Your task to perform on an android device: see tabs open on other devices in the chrome app Image 0: 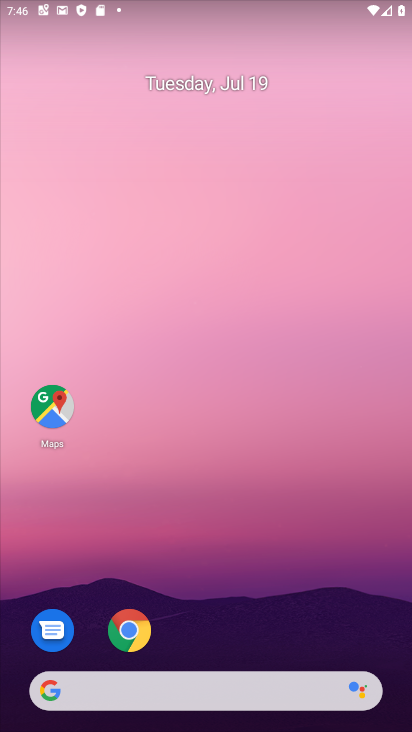
Step 0: drag from (265, 585) to (163, 89)
Your task to perform on an android device: see tabs open on other devices in the chrome app Image 1: 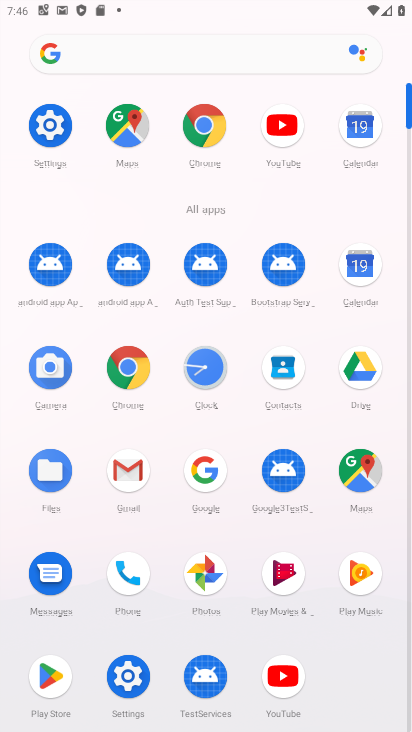
Step 1: click (211, 126)
Your task to perform on an android device: see tabs open on other devices in the chrome app Image 2: 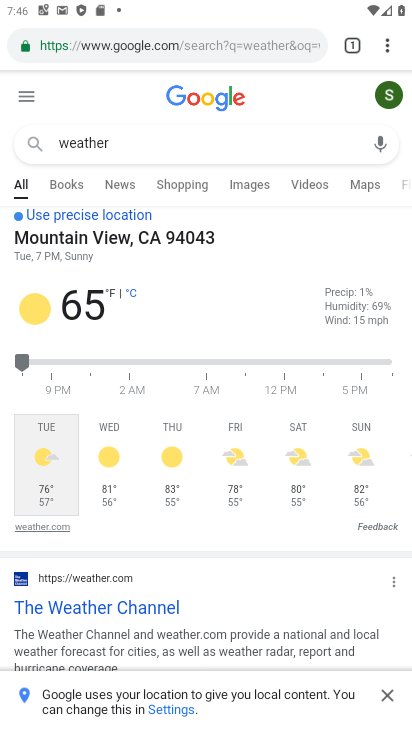
Step 2: task complete